Your task to perform on an android device: toggle javascript in the chrome app Image 0: 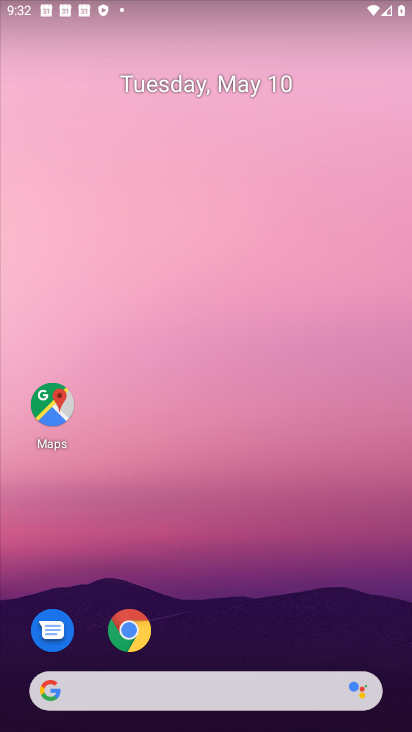
Step 0: click (127, 631)
Your task to perform on an android device: toggle javascript in the chrome app Image 1: 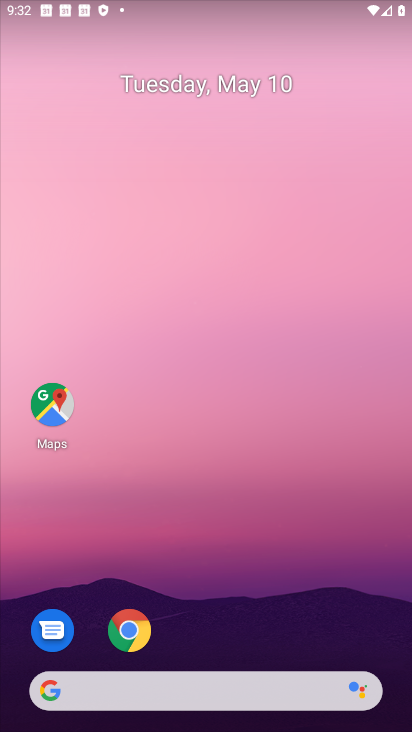
Step 1: click (127, 631)
Your task to perform on an android device: toggle javascript in the chrome app Image 2: 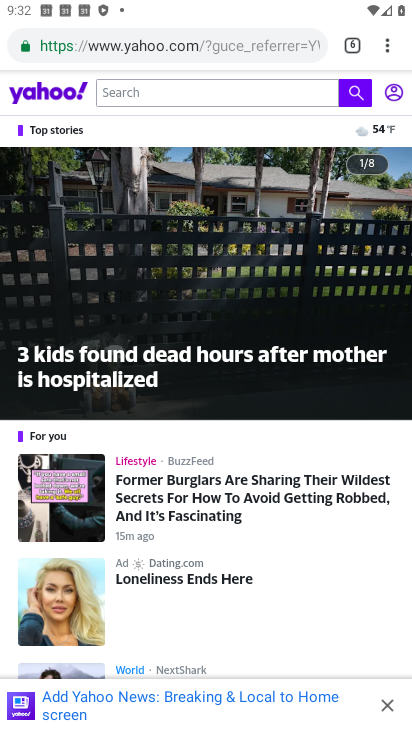
Step 2: click (387, 40)
Your task to perform on an android device: toggle javascript in the chrome app Image 3: 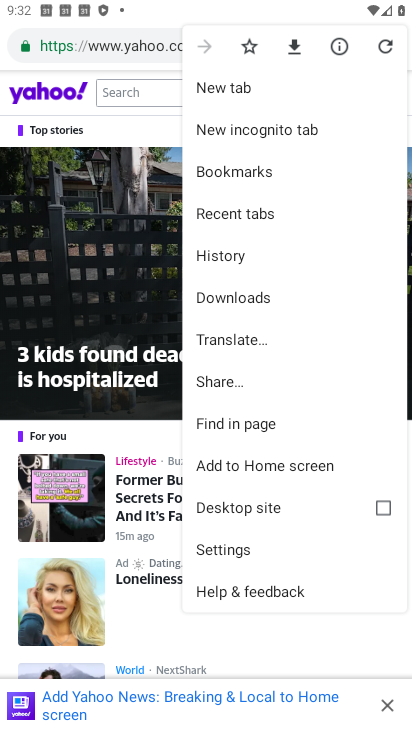
Step 3: click (241, 546)
Your task to perform on an android device: toggle javascript in the chrome app Image 4: 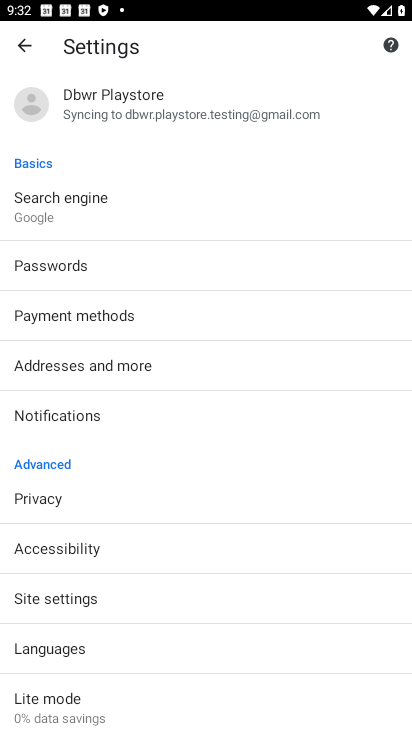
Step 4: click (127, 601)
Your task to perform on an android device: toggle javascript in the chrome app Image 5: 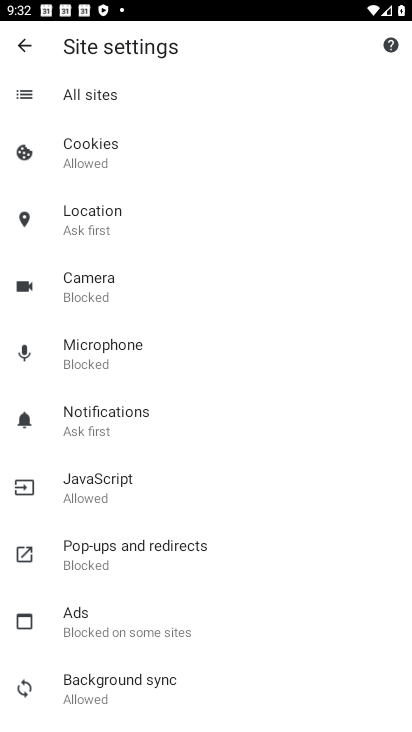
Step 5: click (122, 486)
Your task to perform on an android device: toggle javascript in the chrome app Image 6: 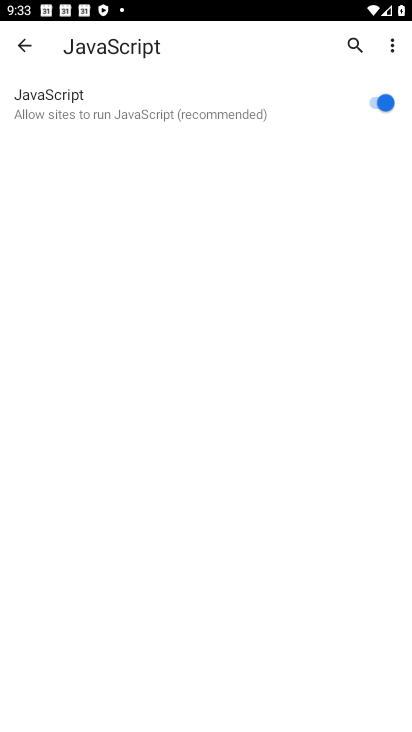
Step 6: click (389, 99)
Your task to perform on an android device: toggle javascript in the chrome app Image 7: 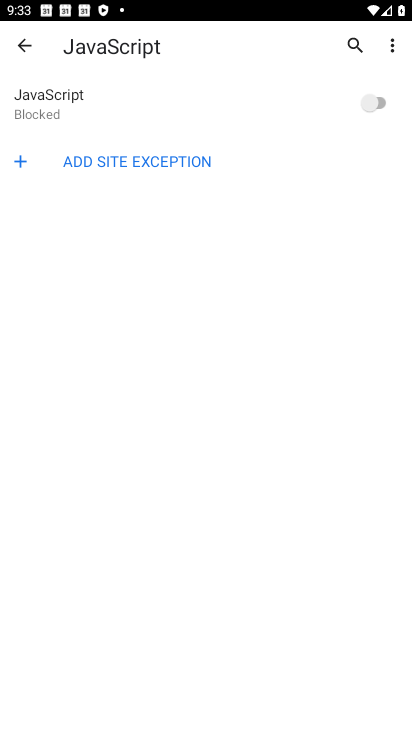
Step 7: task complete